Your task to perform on an android device: Open the phone app and click the voicemail tab. Image 0: 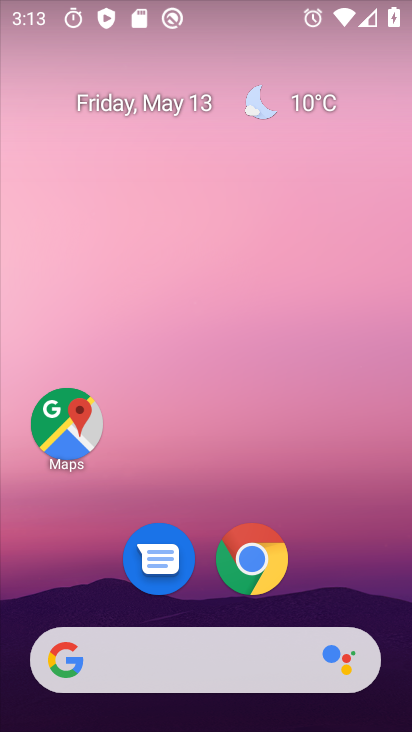
Step 0: drag from (210, 599) to (231, 183)
Your task to perform on an android device: Open the phone app and click the voicemail tab. Image 1: 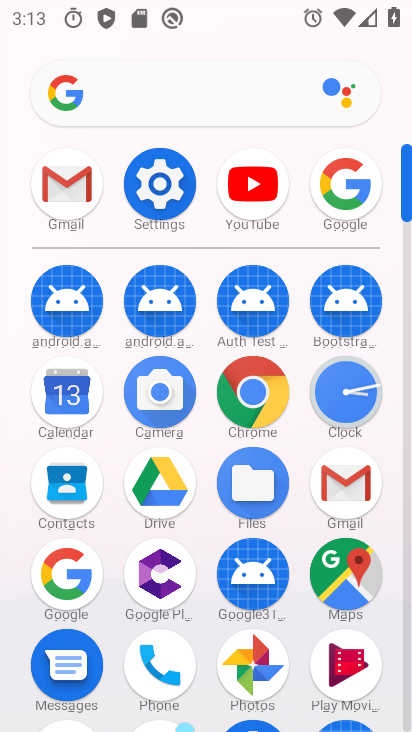
Step 1: click (177, 648)
Your task to perform on an android device: Open the phone app and click the voicemail tab. Image 2: 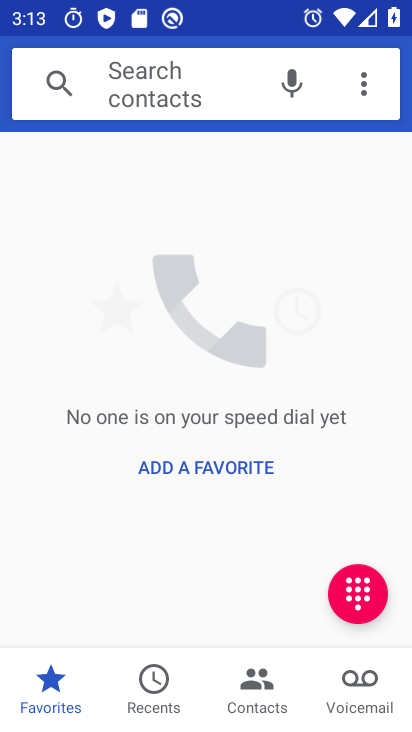
Step 2: click (351, 673)
Your task to perform on an android device: Open the phone app and click the voicemail tab. Image 3: 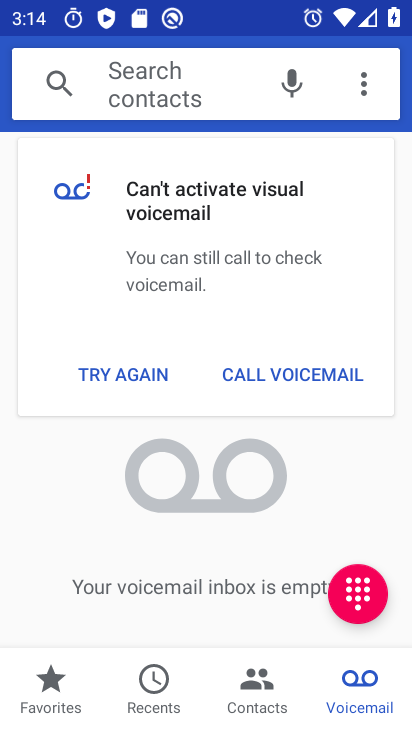
Step 3: task complete